Your task to perform on an android device: allow notifications from all sites in the chrome app Image 0: 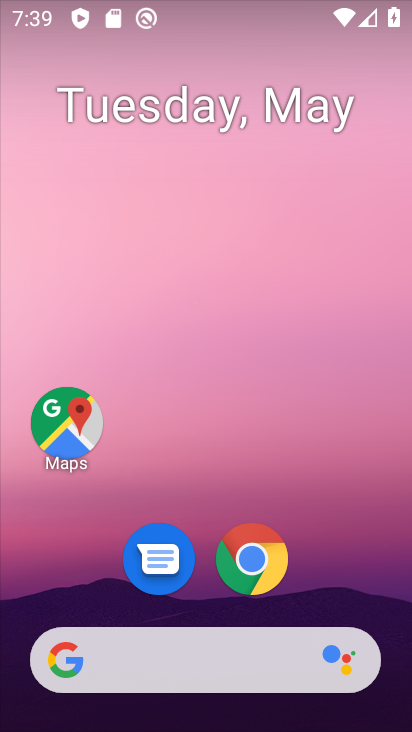
Step 0: drag from (368, 555) to (233, 26)
Your task to perform on an android device: allow notifications from all sites in the chrome app Image 1: 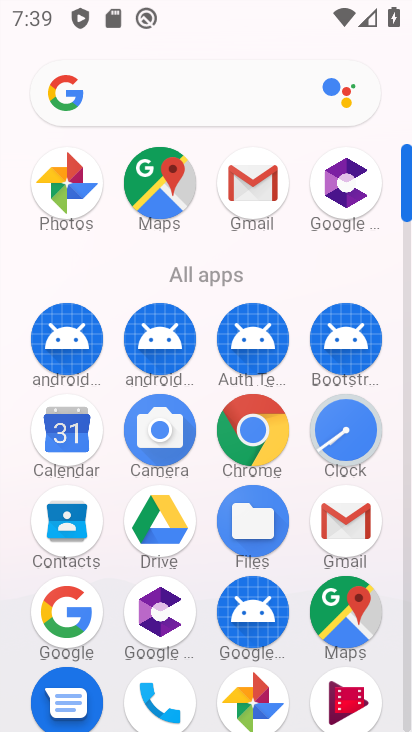
Step 1: click (260, 442)
Your task to perform on an android device: allow notifications from all sites in the chrome app Image 2: 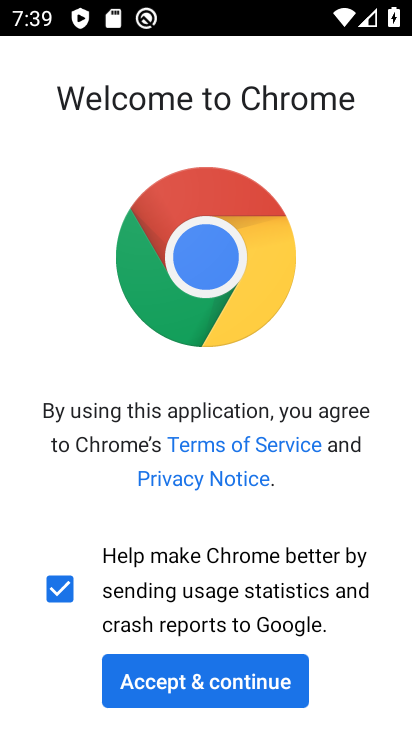
Step 2: click (227, 703)
Your task to perform on an android device: allow notifications from all sites in the chrome app Image 3: 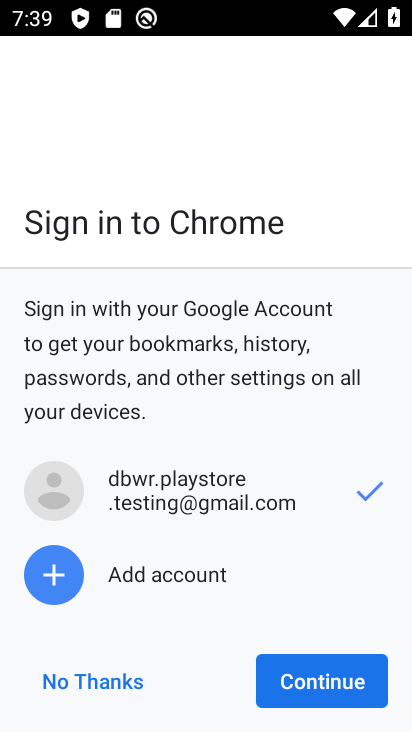
Step 3: click (112, 665)
Your task to perform on an android device: allow notifications from all sites in the chrome app Image 4: 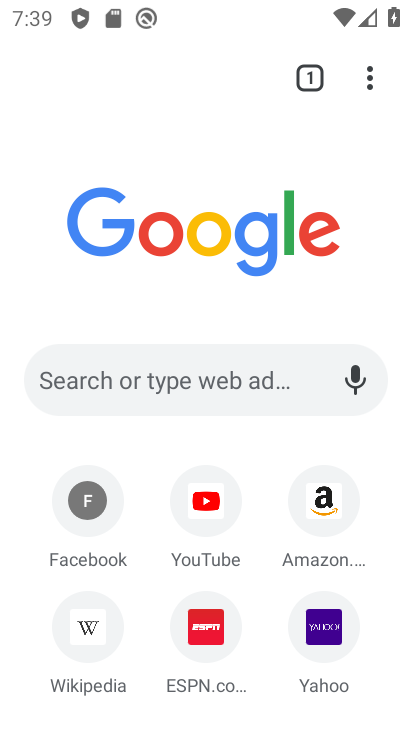
Step 4: drag from (364, 64) to (112, 631)
Your task to perform on an android device: allow notifications from all sites in the chrome app Image 5: 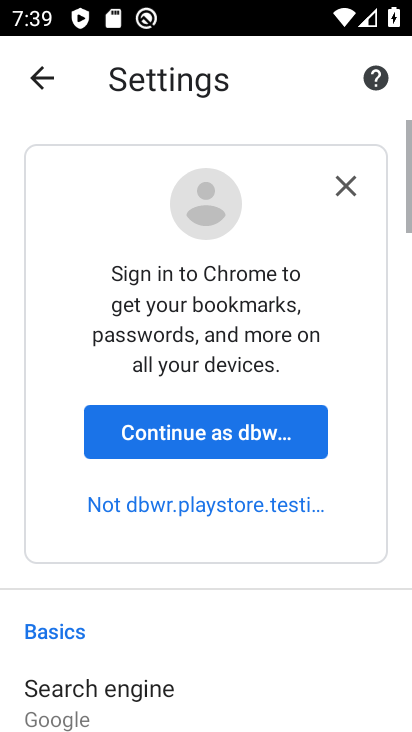
Step 5: drag from (129, 640) to (212, 209)
Your task to perform on an android device: allow notifications from all sites in the chrome app Image 6: 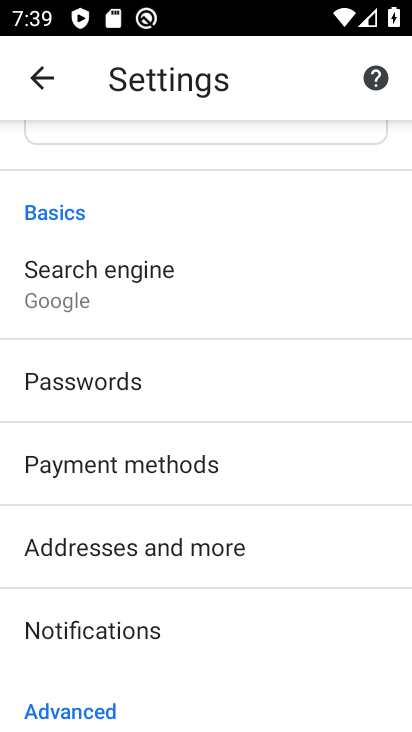
Step 6: drag from (199, 549) to (208, 170)
Your task to perform on an android device: allow notifications from all sites in the chrome app Image 7: 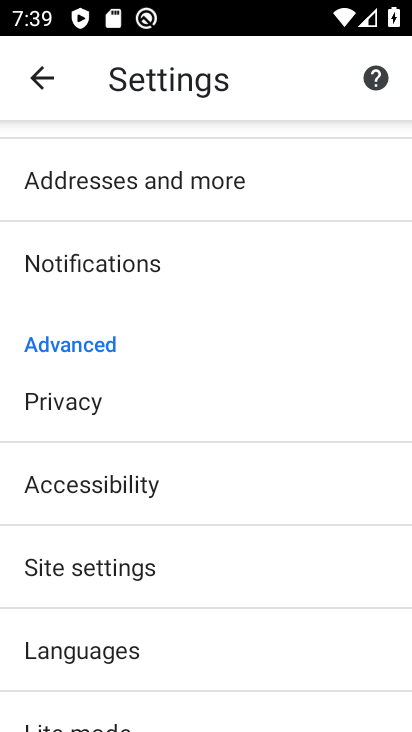
Step 7: click (110, 566)
Your task to perform on an android device: allow notifications from all sites in the chrome app Image 8: 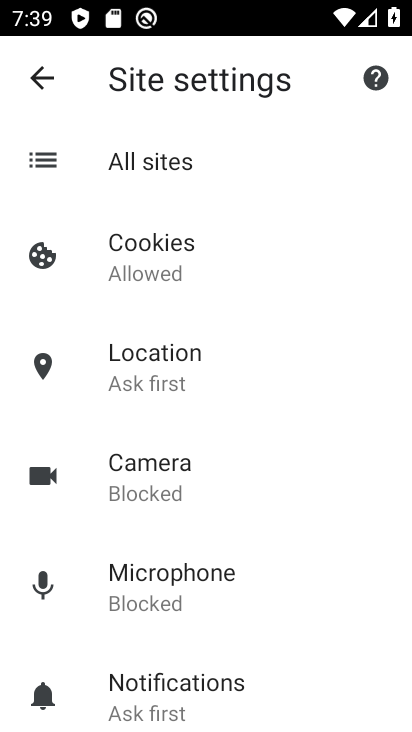
Step 8: drag from (223, 631) to (238, 297)
Your task to perform on an android device: allow notifications from all sites in the chrome app Image 9: 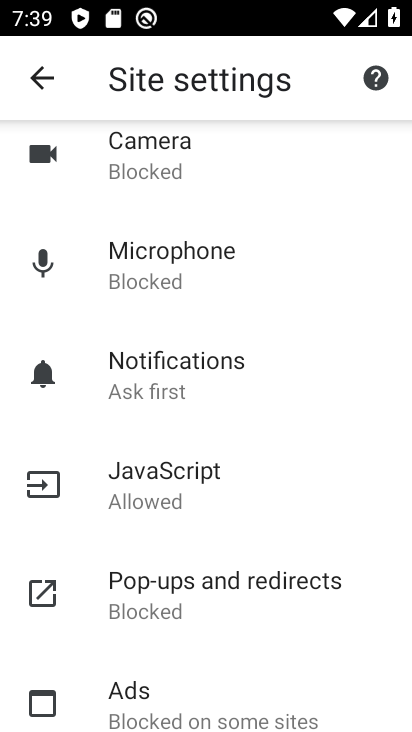
Step 9: click (167, 380)
Your task to perform on an android device: allow notifications from all sites in the chrome app Image 10: 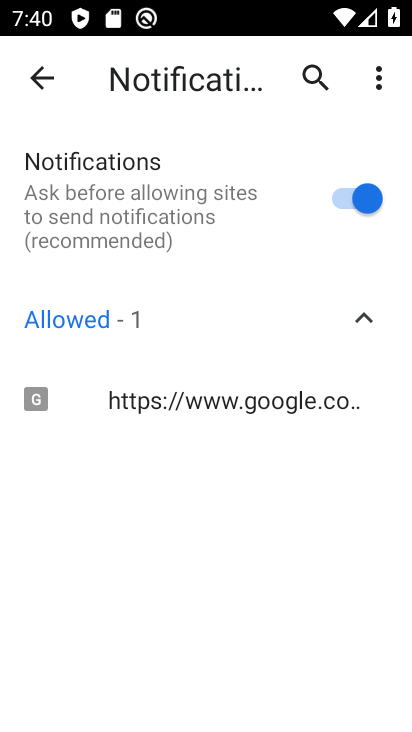
Step 10: task complete